Your task to perform on an android device: toggle notifications settings in the gmail app Image 0: 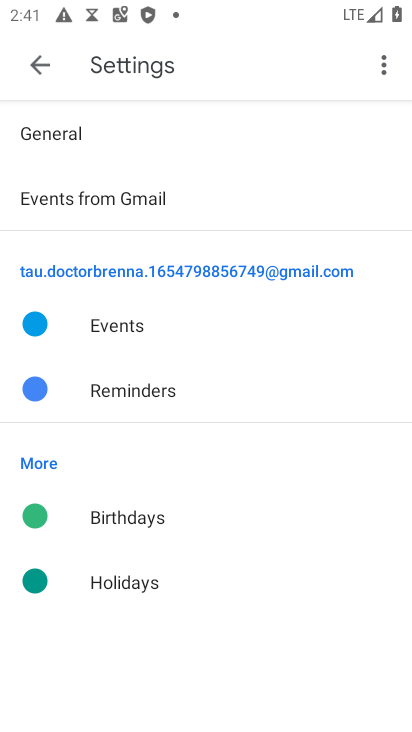
Step 0: press back button
Your task to perform on an android device: toggle notifications settings in the gmail app Image 1: 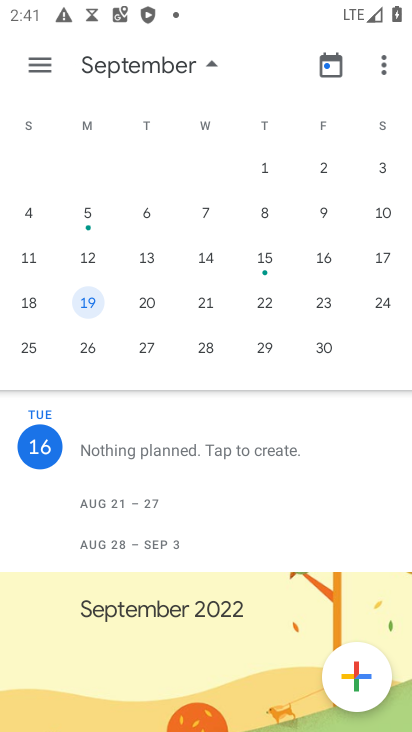
Step 1: press back button
Your task to perform on an android device: toggle notifications settings in the gmail app Image 2: 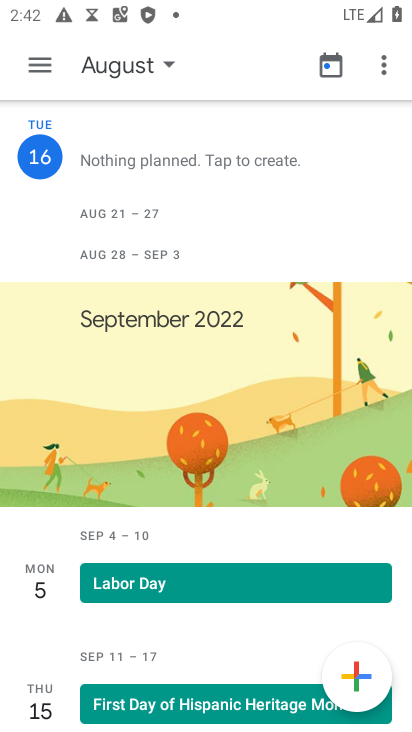
Step 2: press back button
Your task to perform on an android device: toggle notifications settings in the gmail app Image 3: 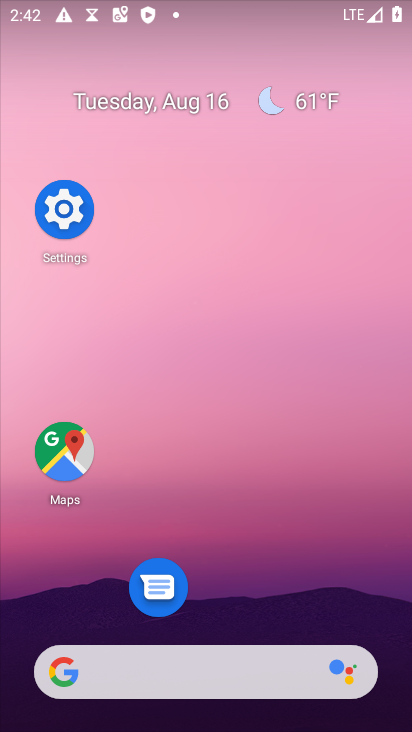
Step 3: drag from (234, 619) to (302, 69)
Your task to perform on an android device: toggle notifications settings in the gmail app Image 4: 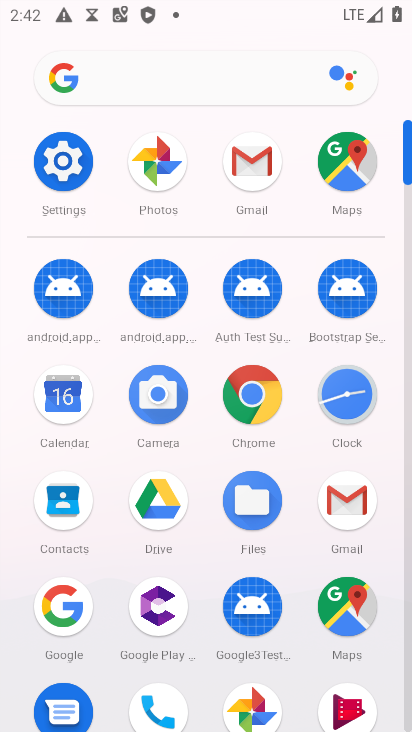
Step 4: click (248, 163)
Your task to perform on an android device: toggle notifications settings in the gmail app Image 5: 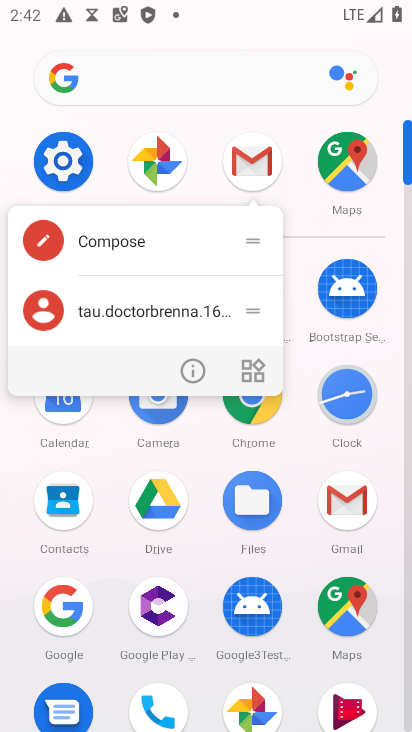
Step 5: click (188, 374)
Your task to perform on an android device: toggle notifications settings in the gmail app Image 6: 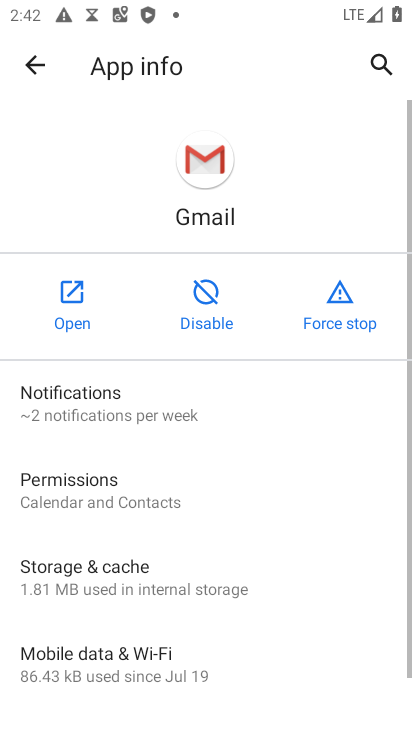
Step 6: click (129, 396)
Your task to perform on an android device: toggle notifications settings in the gmail app Image 7: 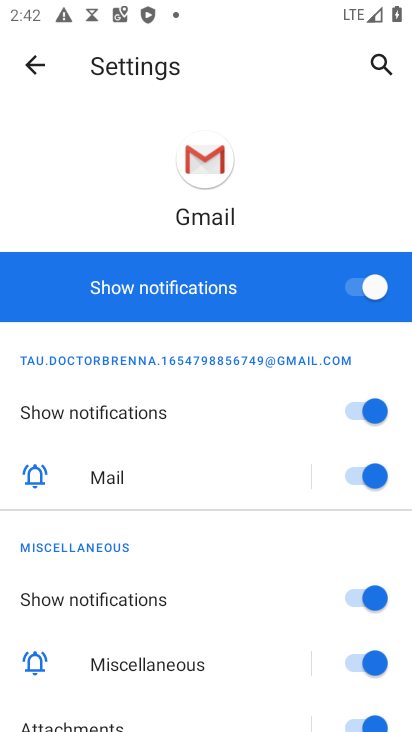
Step 7: click (376, 286)
Your task to perform on an android device: toggle notifications settings in the gmail app Image 8: 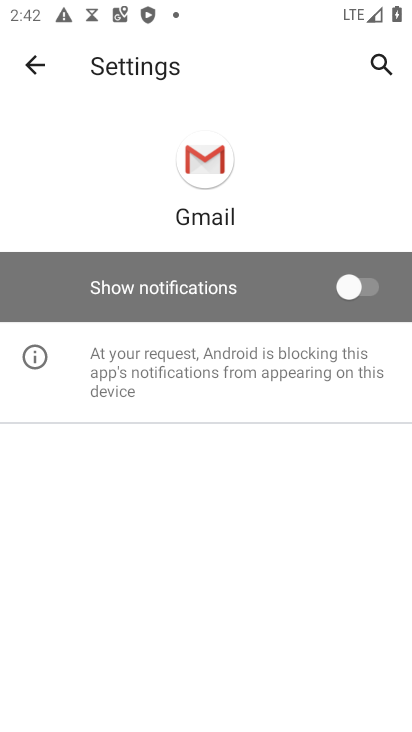
Step 8: task complete